Your task to perform on an android device: turn on javascript in the chrome app Image 0: 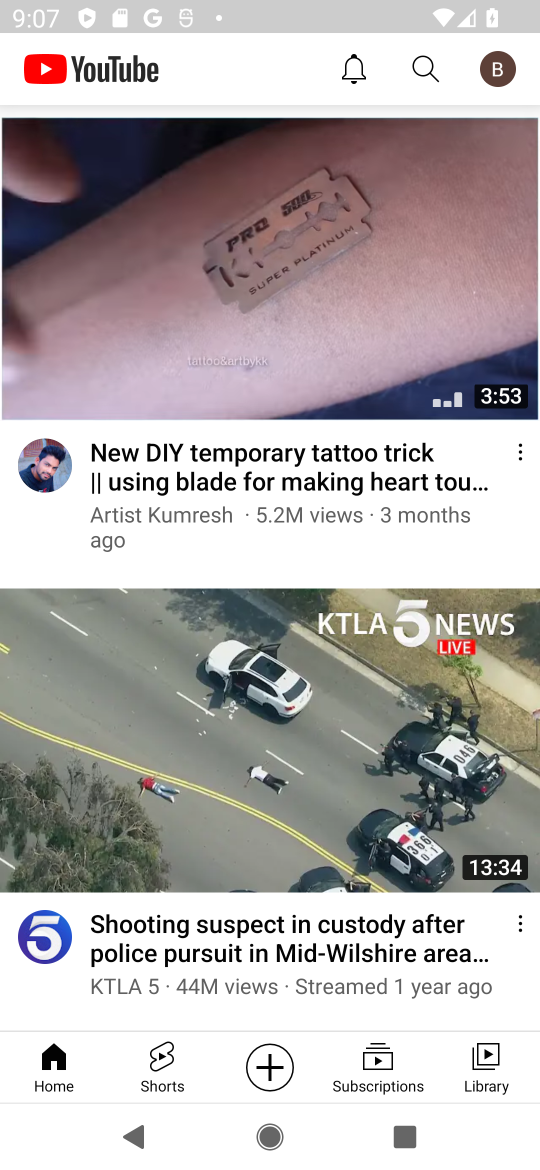
Step 0: press home button
Your task to perform on an android device: turn on javascript in the chrome app Image 1: 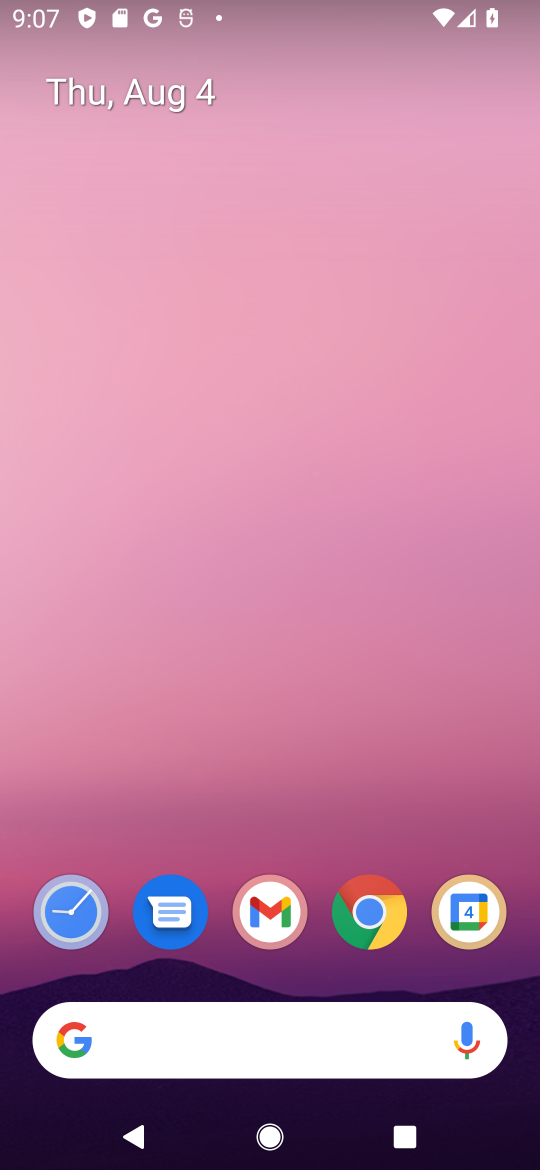
Step 1: click (360, 925)
Your task to perform on an android device: turn on javascript in the chrome app Image 2: 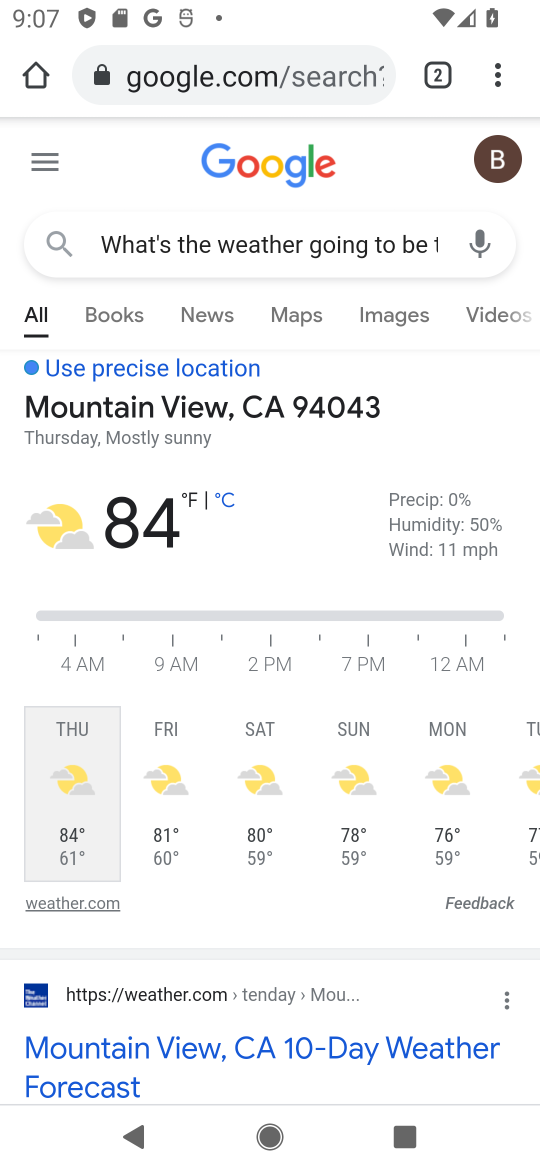
Step 2: click (509, 67)
Your task to perform on an android device: turn on javascript in the chrome app Image 3: 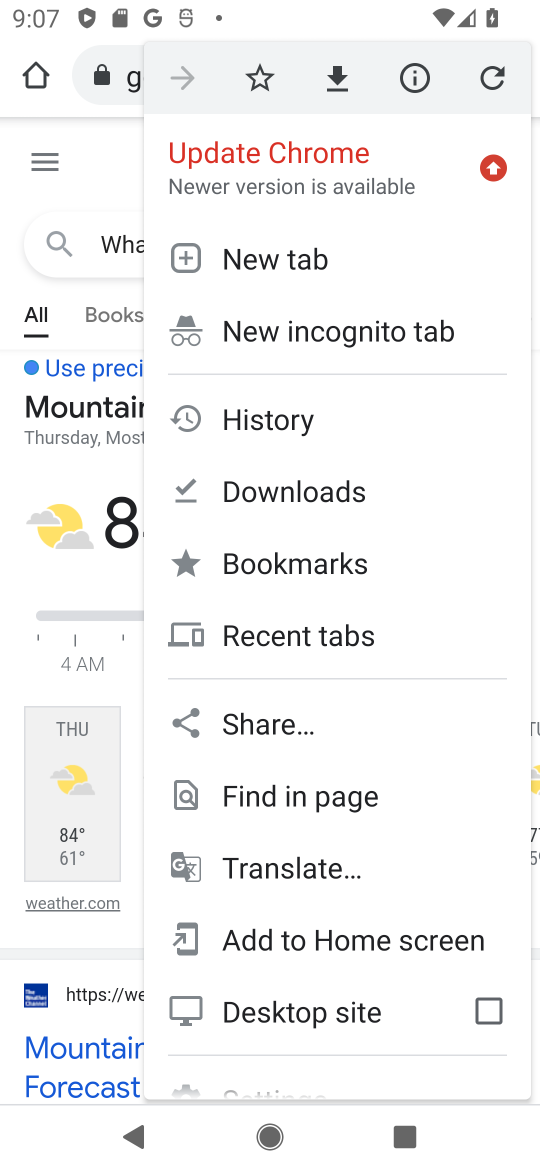
Step 3: drag from (321, 1024) to (285, 513)
Your task to perform on an android device: turn on javascript in the chrome app Image 4: 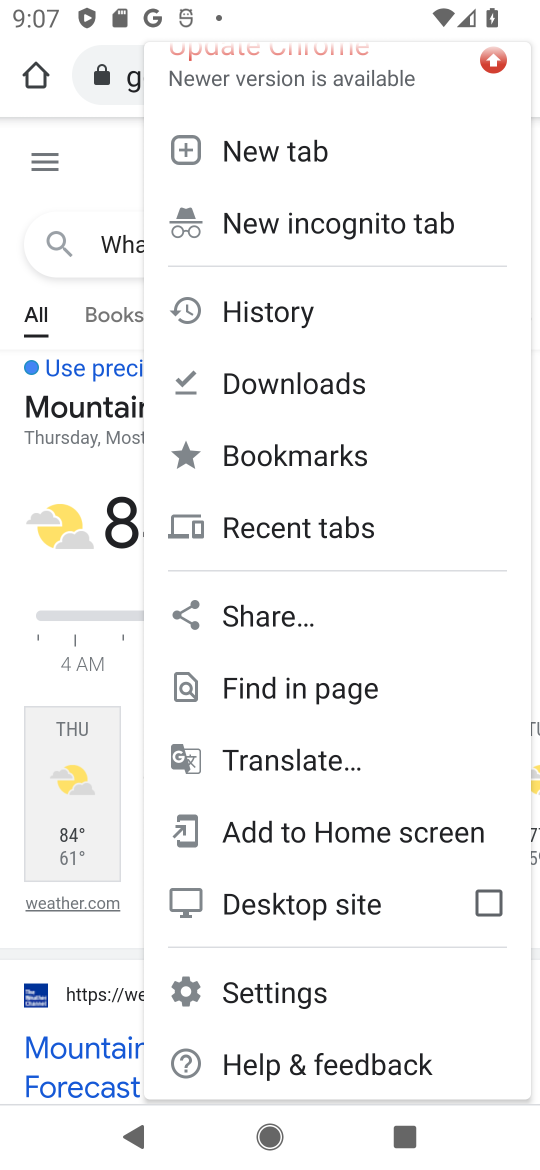
Step 4: click (302, 1000)
Your task to perform on an android device: turn on javascript in the chrome app Image 5: 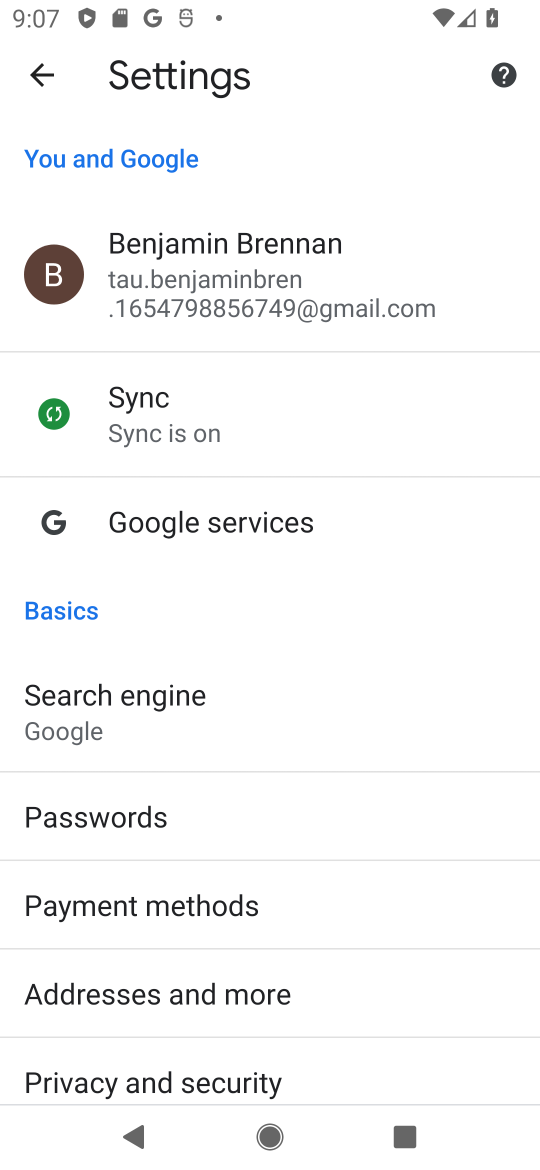
Step 5: drag from (348, 1050) to (402, 275)
Your task to perform on an android device: turn on javascript in the chrome app Image 6: 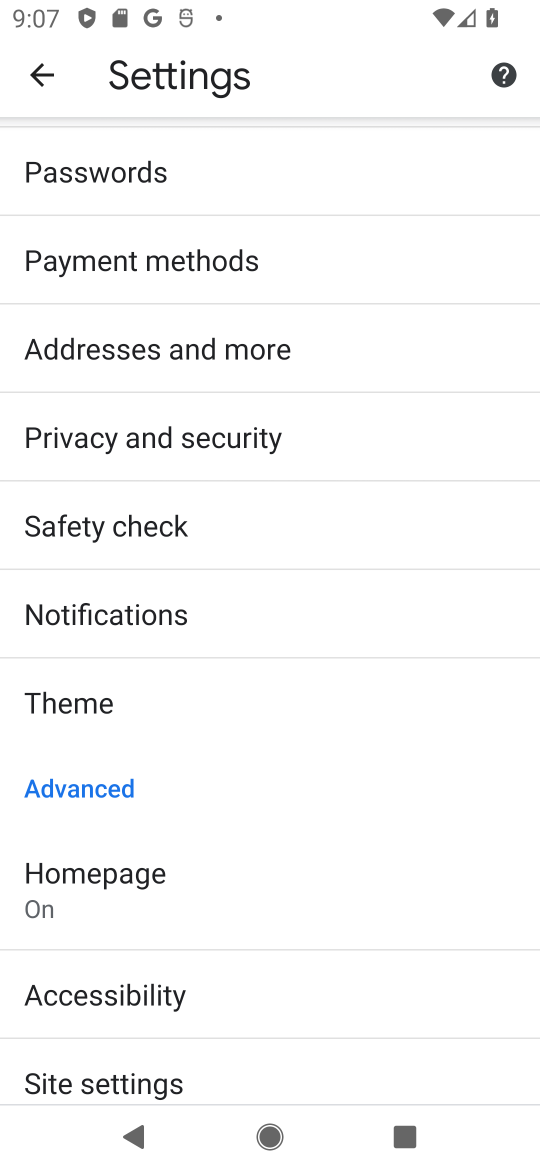
Step 6: drag from (412, 948) to (366, 328)
Your task to perform on an android device: turn on javascript in the chrome app Image 7: 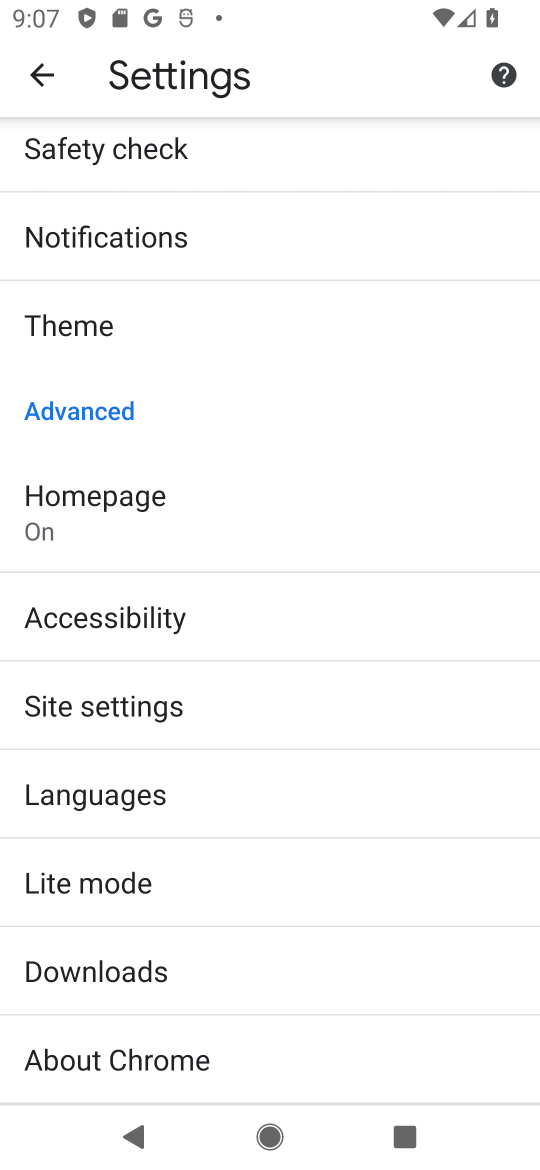
Step 7: click (326, 712)
Your task to perform on an android device: turn on javascript in the chrome app Image 8: 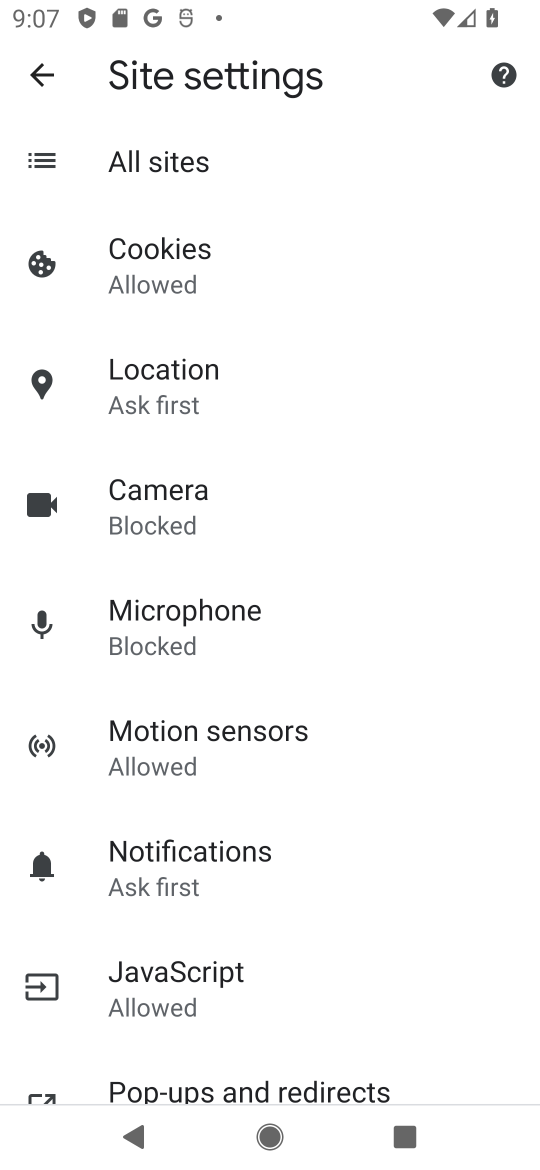
Step 8: click (295, 973)
Your task to perform on an android device: turn on javascript in the chrome app Image 9: 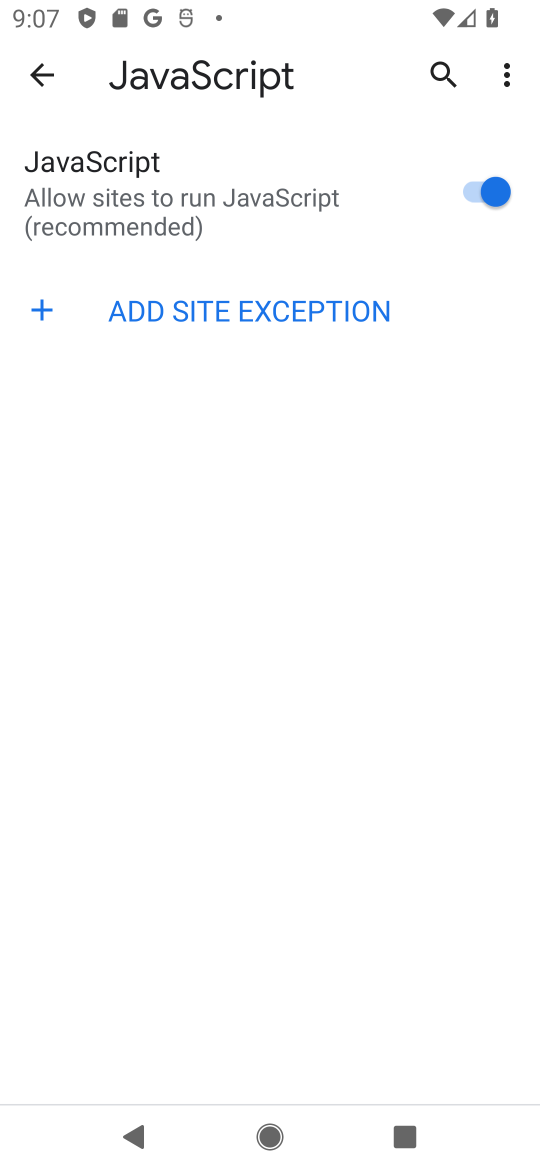
Step 9: task complete